Your task to perform on an android device: check battery use Image 0: 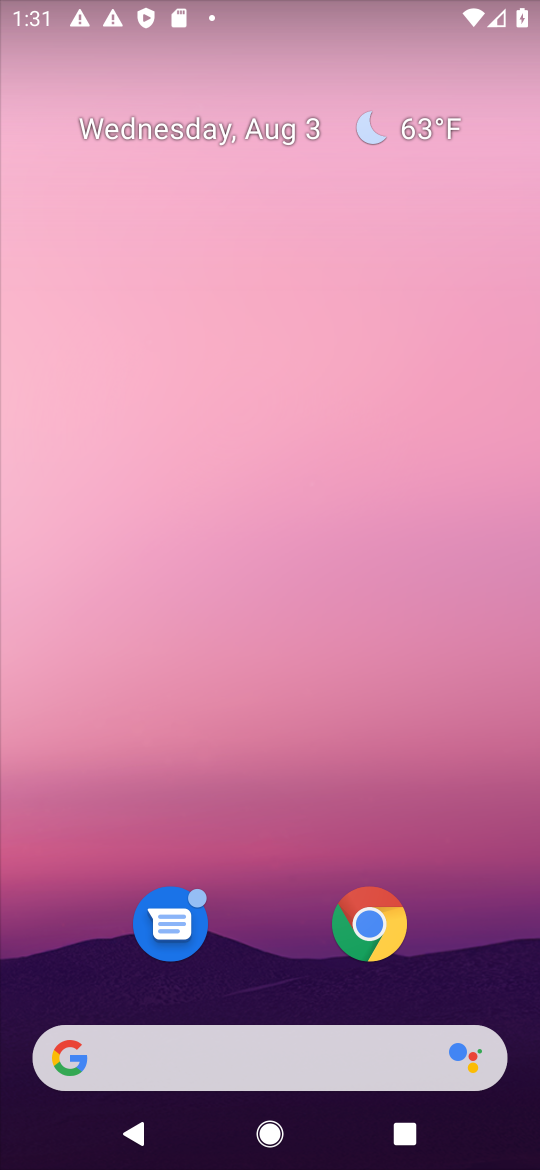
Step 0: press home button
Your task to perform on an android device: check battery use Image 1: 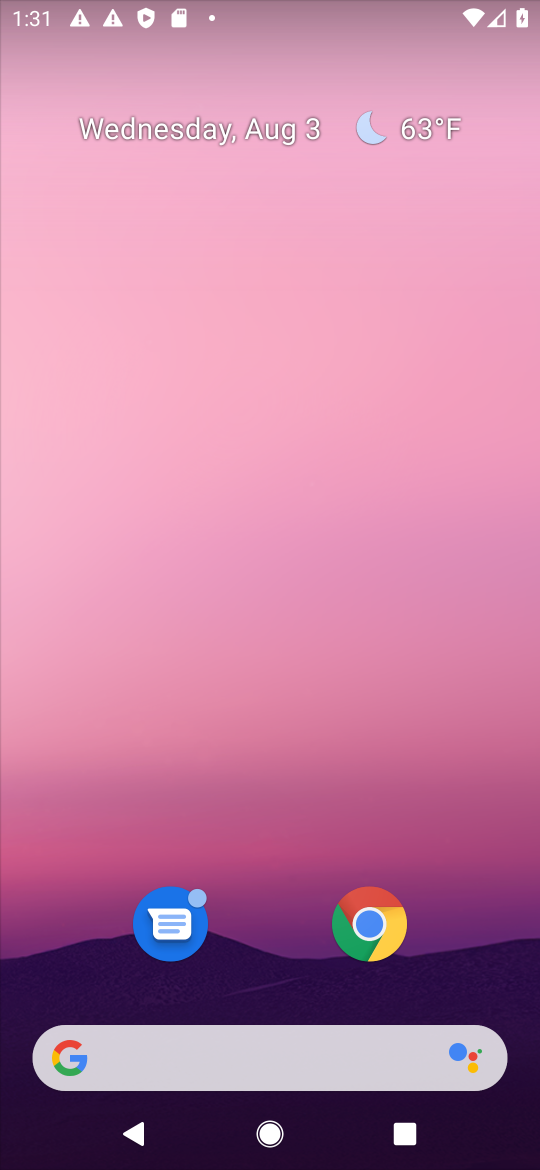
Step 1: press home button
Your task to perform on an android device: check battery use Image 2: 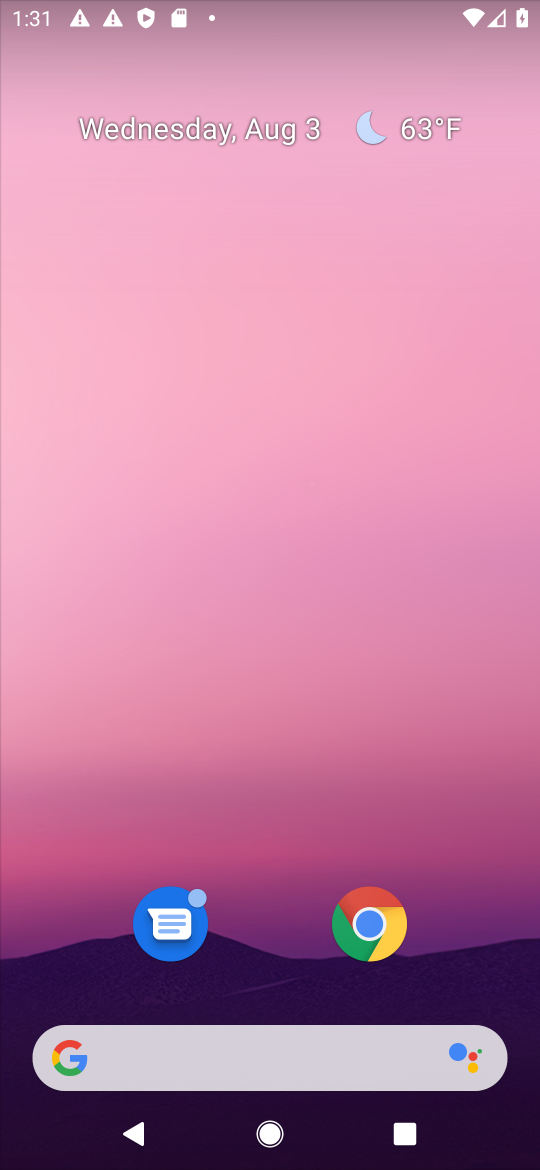
Step 2: drag from (287, 972) to (332, 0)
Your task to perform on an android device: check battery use Image 3: 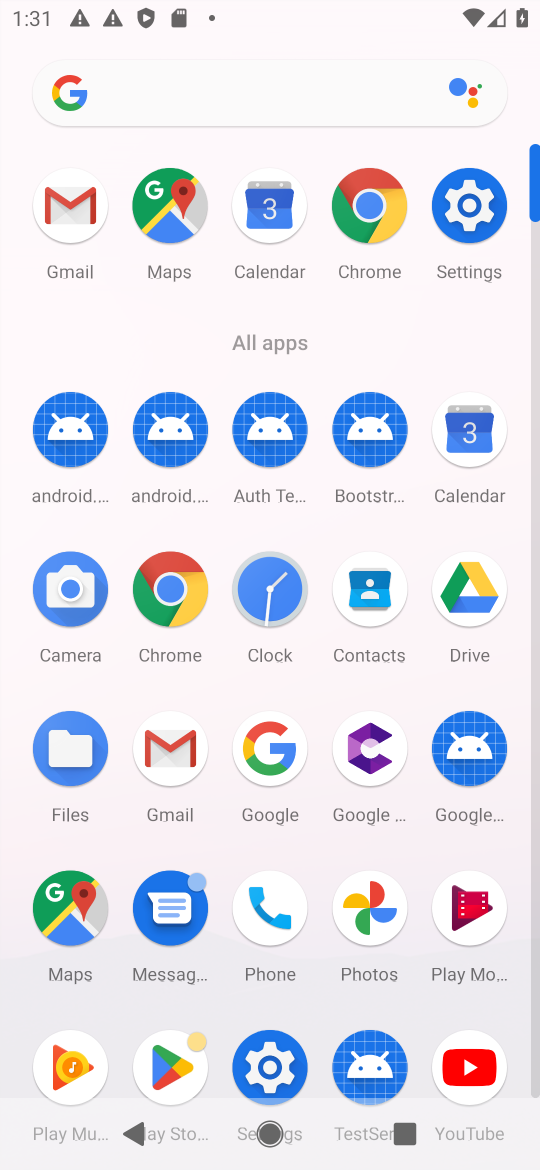
Step 3: click (270, 1056)
Your task to perform on an android device: check battery use Image 4: 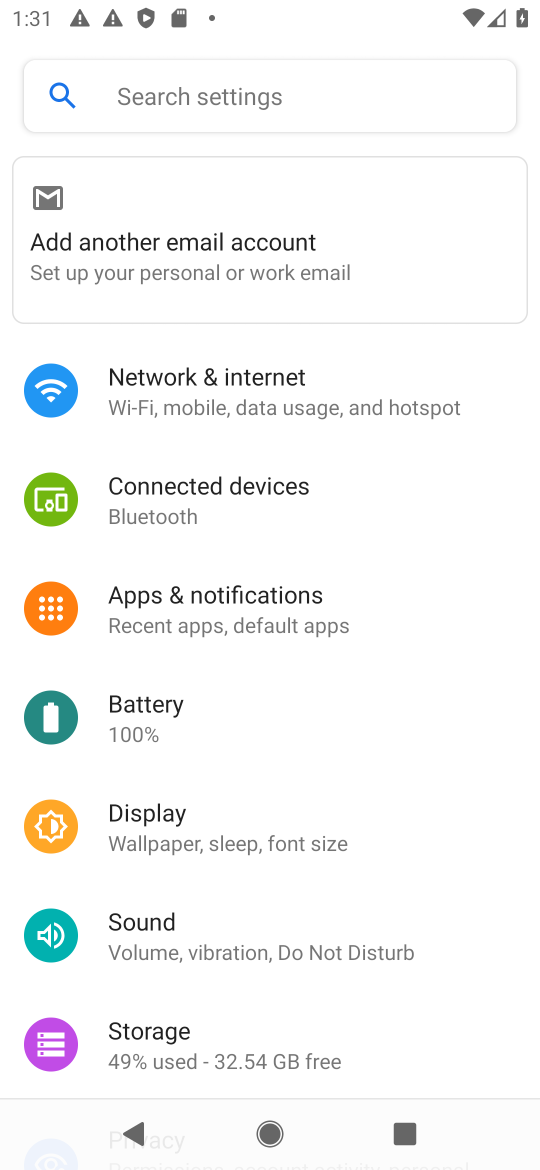
Step 4: click (185, 711)
Your task to perform on an android device: check battery use Image 5: 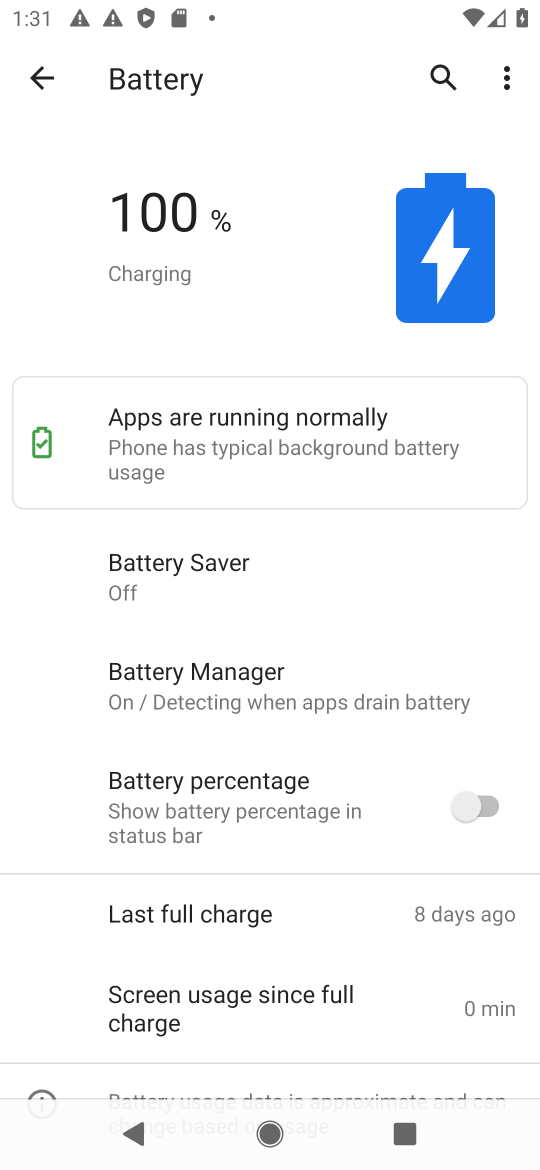
Step 5: click (504, 75)
Your task to perform on an android device: check battery use Image 6: 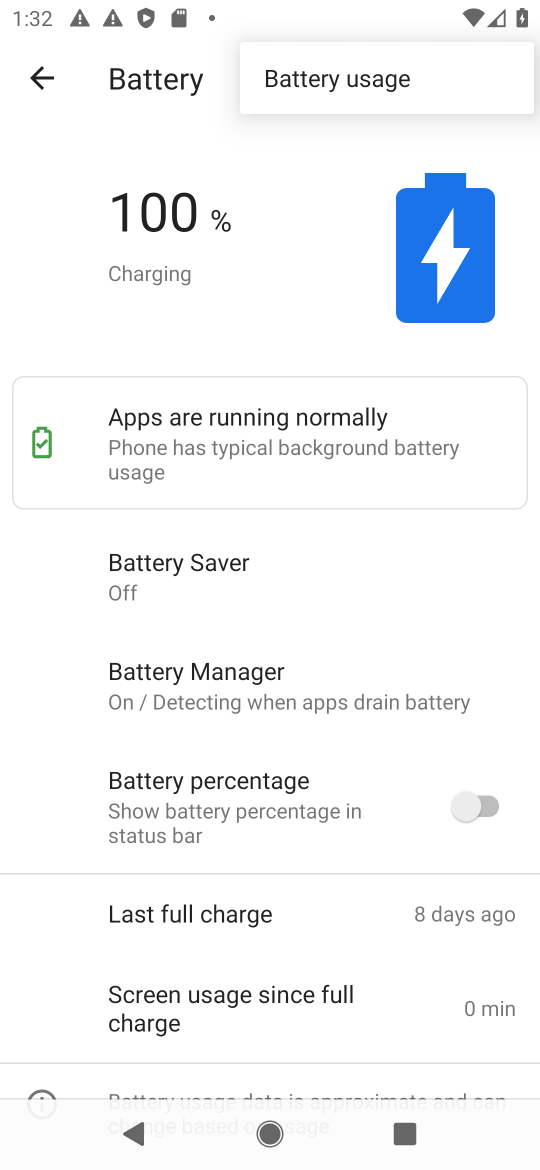
Step 6: click (301, 82)
Your task to perform on an android device: check battery use Image 7: 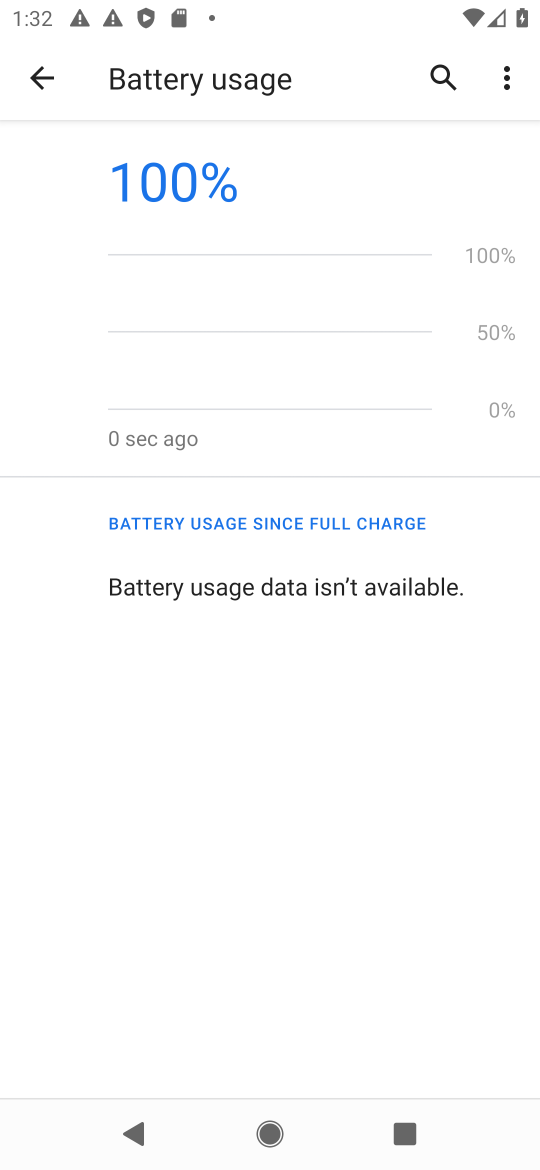
Step 7: task complete